Your task to perform on an android device: Go to privacy settings Image 0: 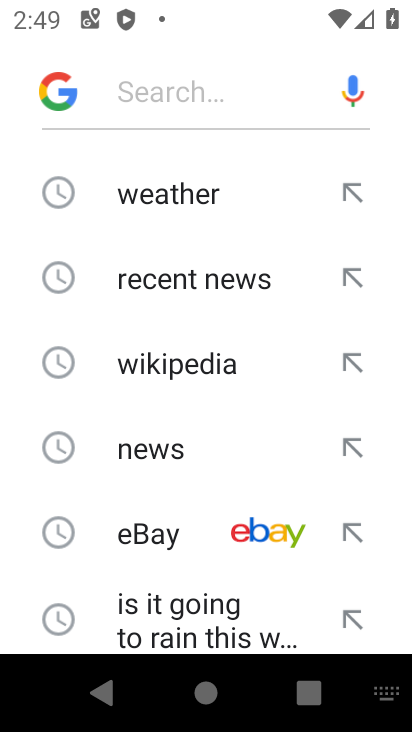
Step 0: press home button
Your task to perform on an android device: Go to privacy settings Image 1: 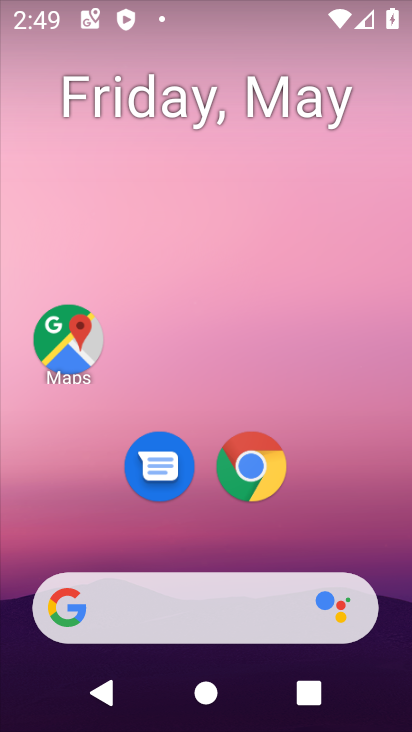
Step 1: drag from (228, 575) to (352, 84)
Your task to perform on an android device: Go to privacy settings Image 2: 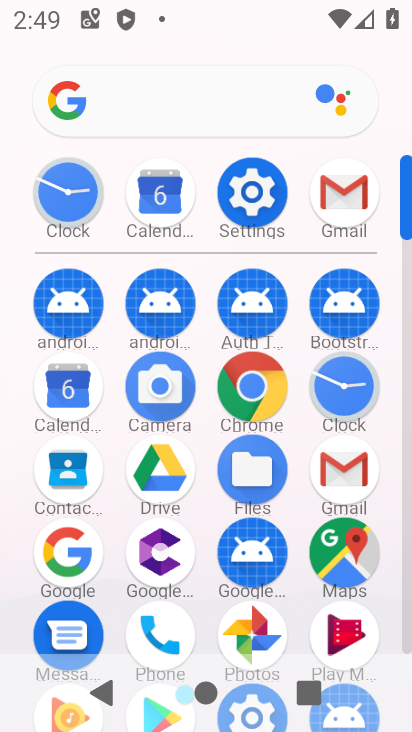
Step 2: click (258, 185)
Your task to perform on an android device: Go to privacy settings Image 3: 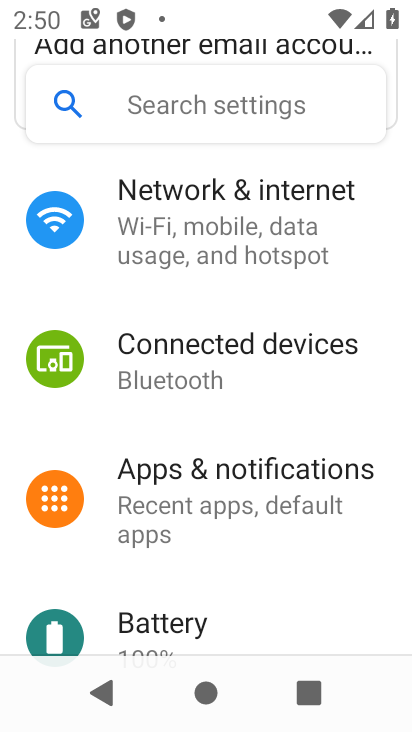
Step 3: drag from (212, 611) to (382, 104)
Your task to perform on an android device: Go to privacy settings Image 4: 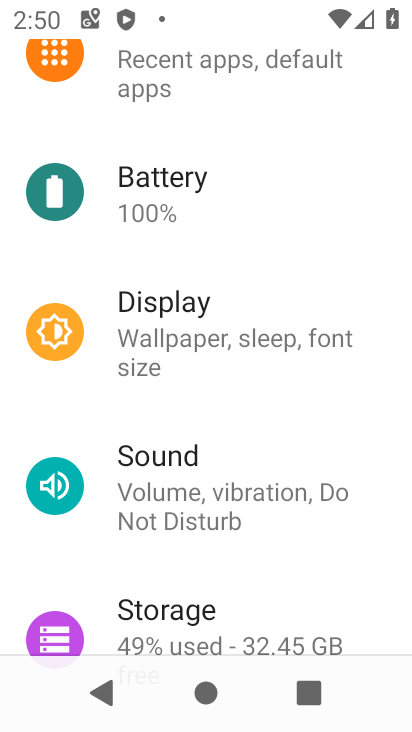
Step 4: drag from (207, 588) to (346, 143)
Your task to perform on an android device: Go to privacy settings Image 5: 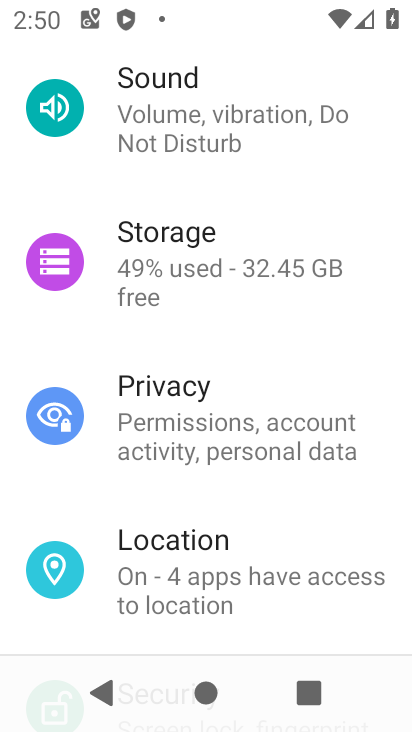
Step 5: click (193, 416)
Your task to perform on an android device: Go to privacy settings Image 6: 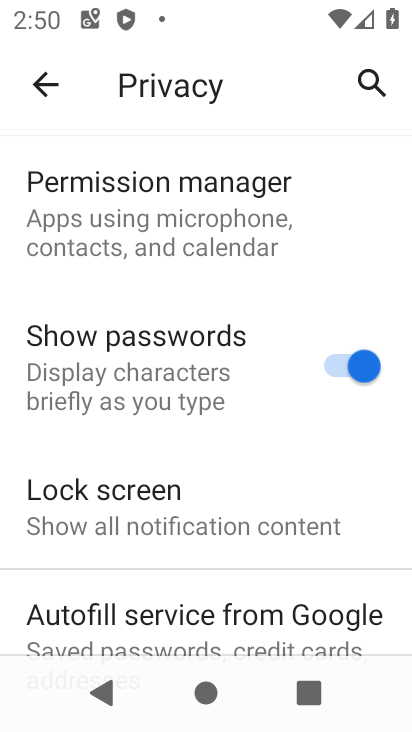
Step 6: task complete